Your task to perform on an android device: Open Yahoo.com Image 0: 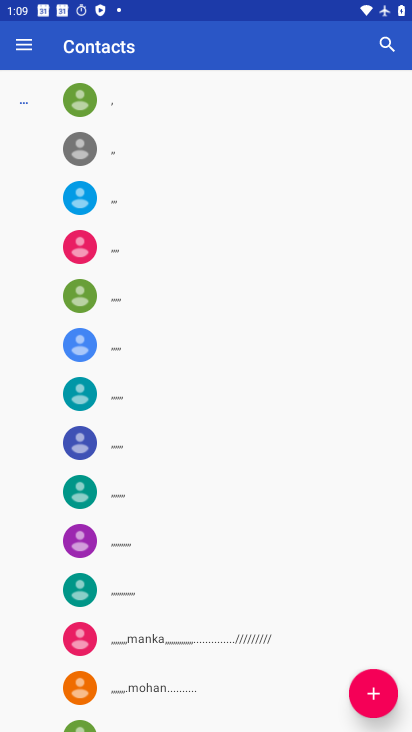
Step 0: press home button
Your task to perform on an android device: Open Yahoo.com Image 1: 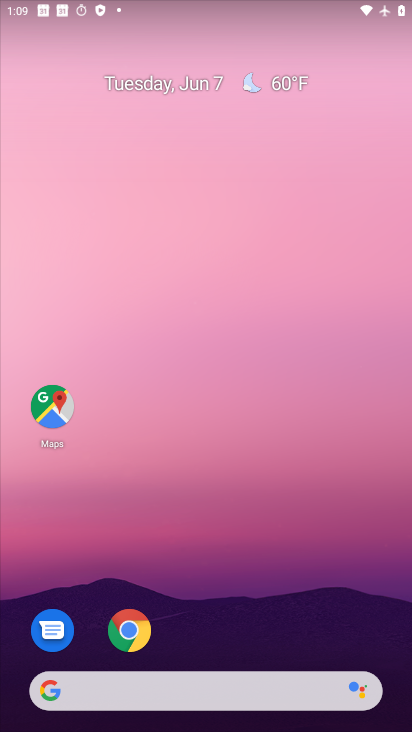
Step 1: drag from (382, 643) to (342, 78)
Your task to perform on an android device: Open Yahoo.com Image 2: 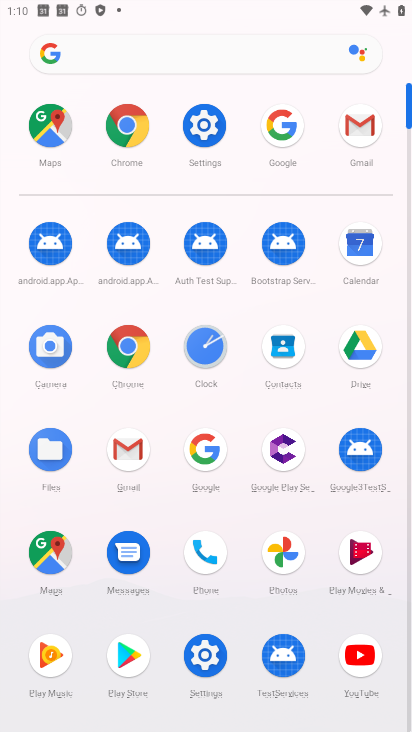
Step 2: click (217, 452)
Your task to perform on an android device: Open Yahoo.com Image 3: 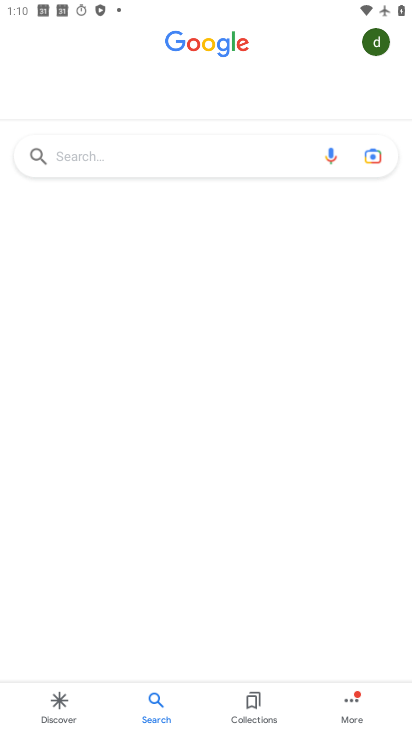
Step 3: click (145, 141)
Your task to perform on an android device: Open Yahoo.com Image 4: 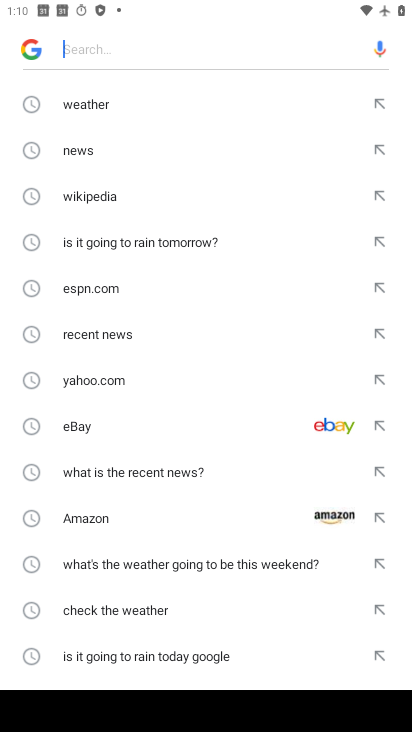
Step 4: drag from (96, 613) to (225, 147)
Your task to perform on an android device: Open Yahoo.com Image 5: 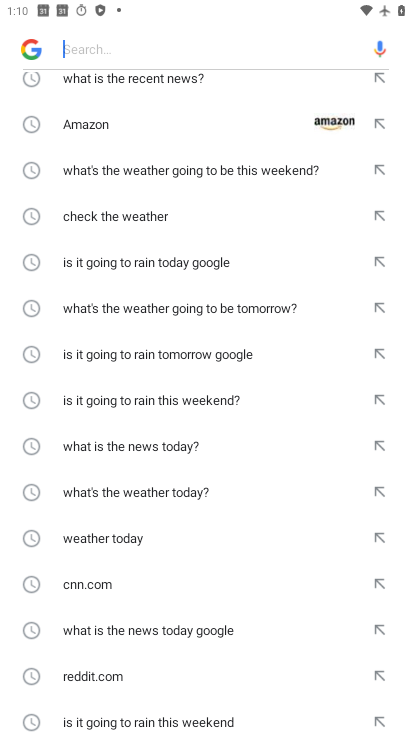
Step 5: drag from (110, 610) to (146, 218)
Your task to perform on an android device: Open Yahoo.com Image 6: 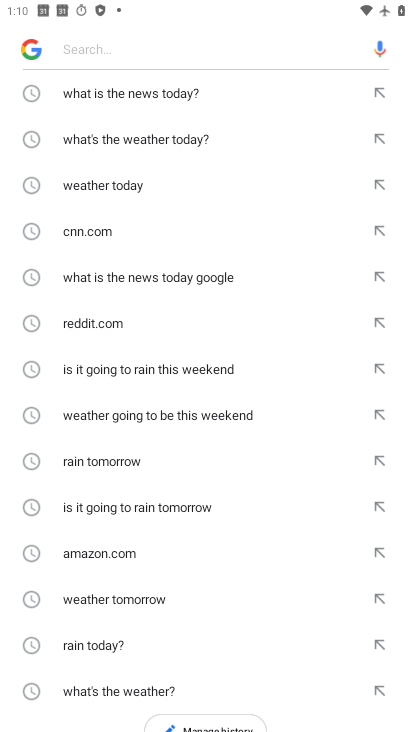
Step 6: drag from (88, 657) to (174, 180)
Your task to perform on an android device: Open Yahoo.com Image 7: 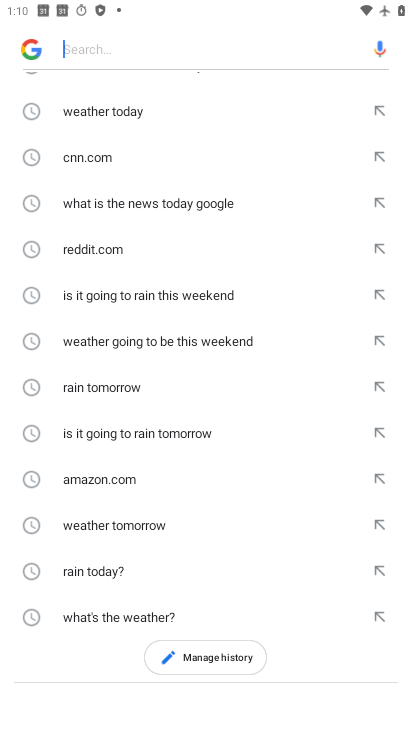
Step 7: drag from (161, 130) to (160, 710)
Your task to perform on an android device: Open Yahoo.com Image 8: 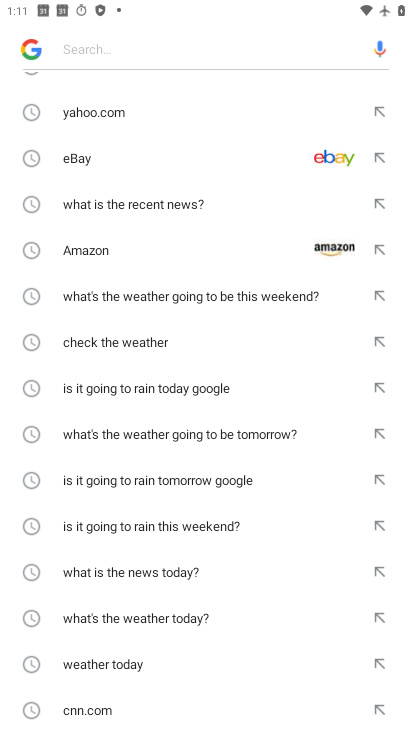
Step 8: drag from (141, 154) to (130, 731)
Your task to perform on an android device: Open Yahoo.com Image 9: 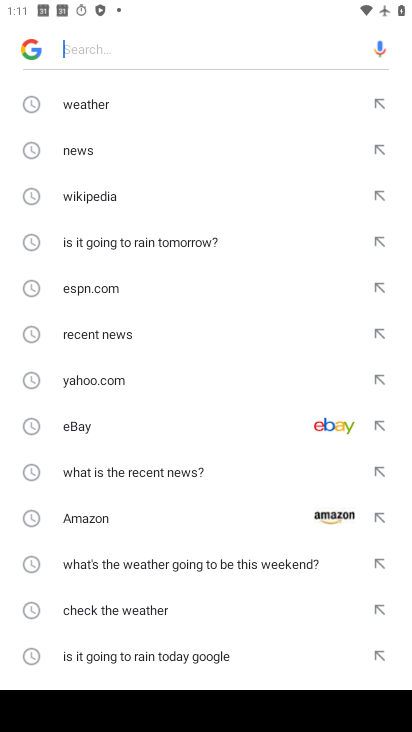
Step 9: click (107, 381)
Your task to perform on an android device: Open Yahoo.com Image 10: 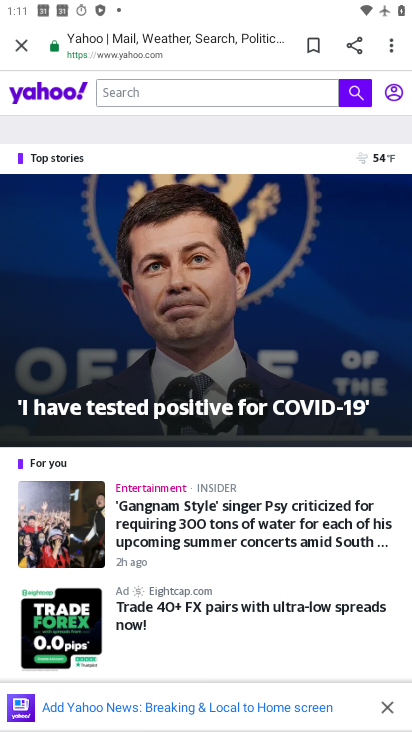
Step 10: task complete